Your task to perform on an android device: see tabs open on other devices in the chrome app Image 0: 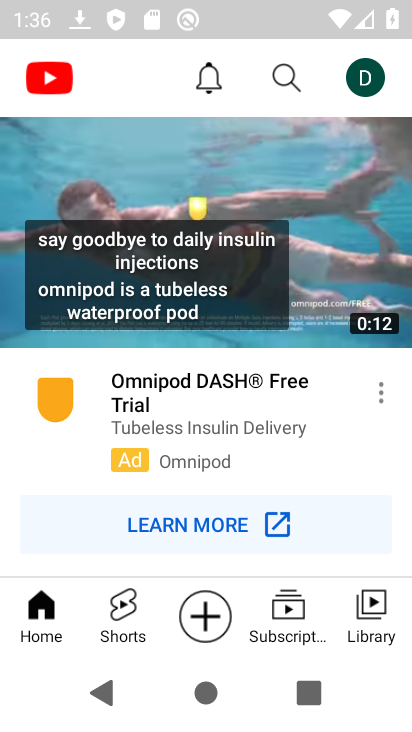
Step 0: press home button
Your task to perform on an android device: see tabs open on other devices in the chrome app Image 1: 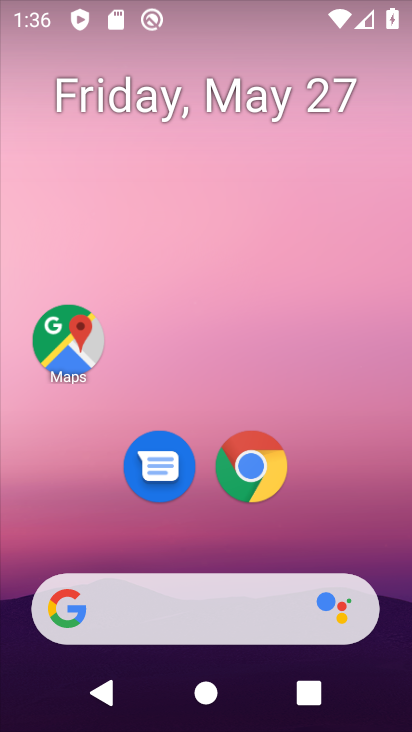
Step 1: click (271, 462)
Your task to perform on an android device: see tabs open on other devices in the chrome app Image 2: 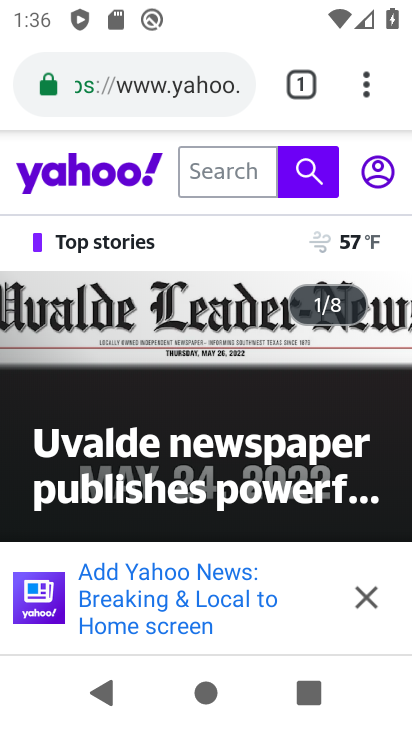
Step 2: click (369, 97)
Your task to perform on an android device: see tabs open on other devices in the chrome app Image 3: 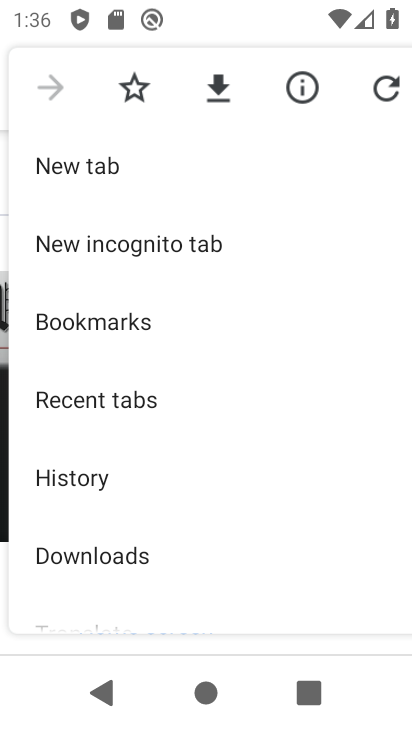
Step 3: click (137, 398)
Your task to perform on an android device: see tabs open on other devices in the chrome app Image 4: 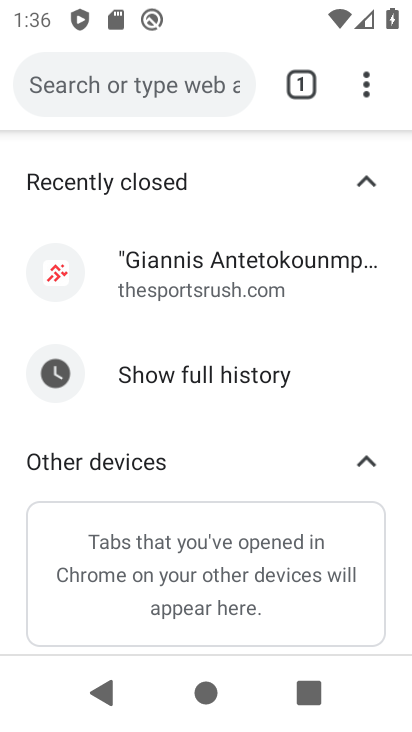
Step 4: task complete